Your task to perform on an android device: turn off notifications settings in the gmail app Image 0: 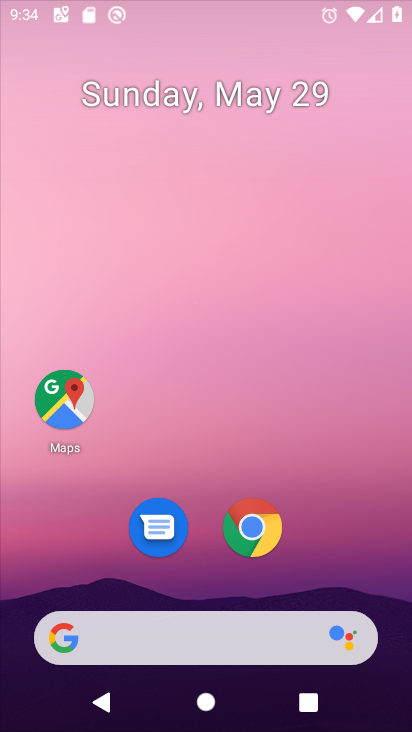
Step 0: press home button
Your task to perform on an android device: turn off notifications settings in the gmail app Image 1: 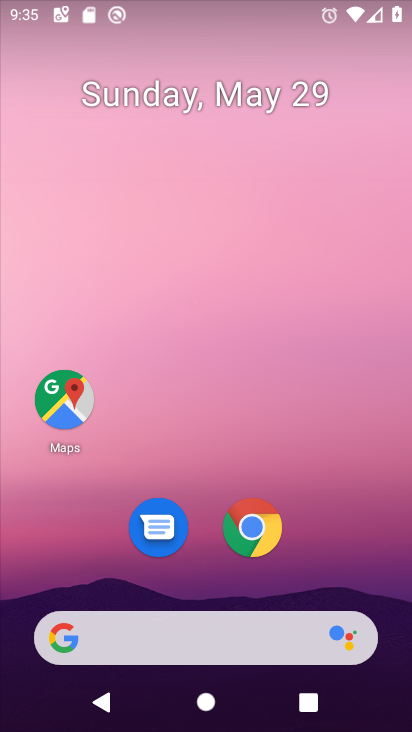
Step 1: drag from (209, 575) to (183, 105)
Your task to perform on an android device: turn off notifications settings in the gmail app Image 2: 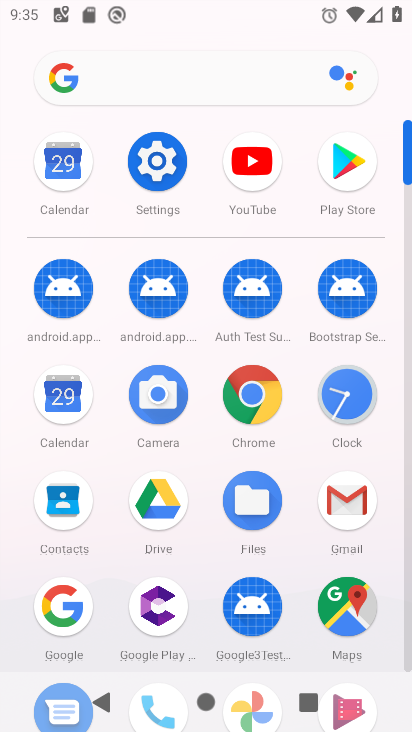
Step 2: click (342, 489)
Your task to perform on an android device: turn off notifications settings in the gmail app Image 3: 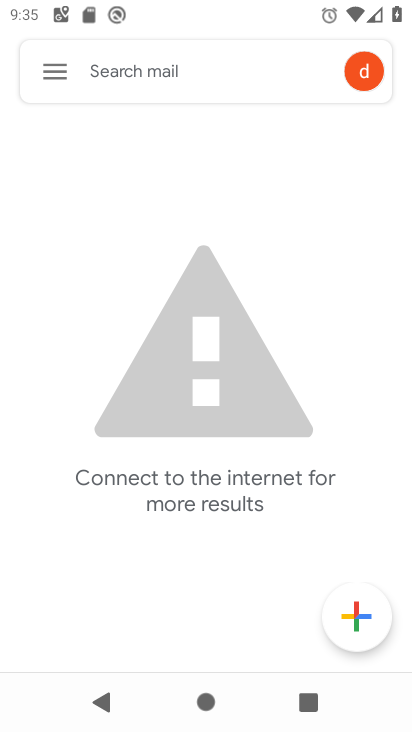
Step 3: click (47, 65)
Your task to perform on an android device: turn off notifications settings in the gmail app Image 4: 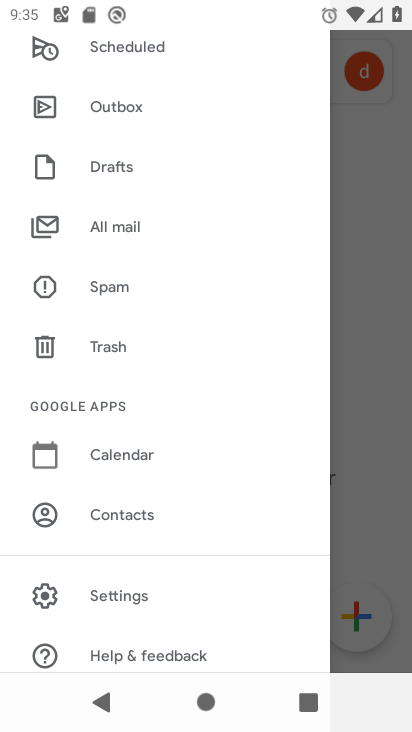
Step 4: click (163, 585)
Your task to perform on an android device: turn off notifications settings in the gmail app Image 5: 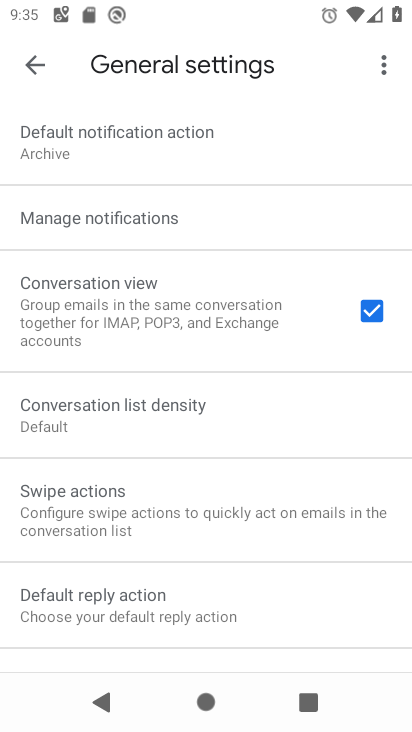
Step 5: click (209, 215)
Your task to perform on an android device: turn off notifications settings in the gmail app Image 6: 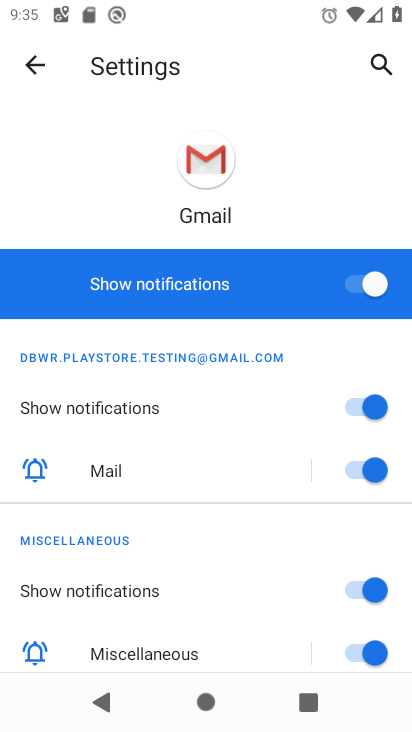
Step 6: click (354, 285)
Your task to perform on an android device: turn off notifications settings in the gmail app Image 7: 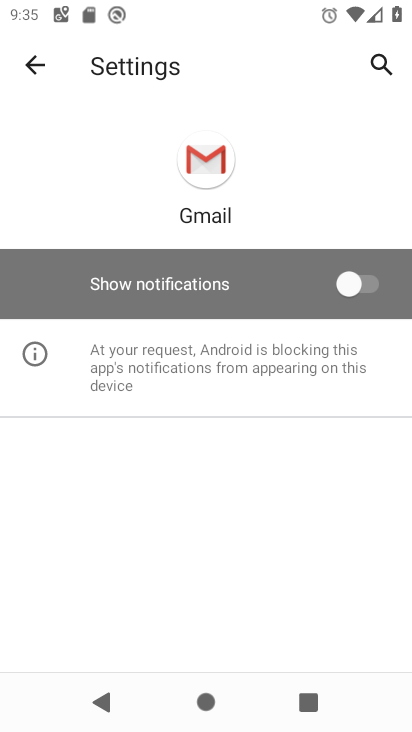
Step 7: task complete